Your task to perform on an android device: turn off airplane mode Image 0: 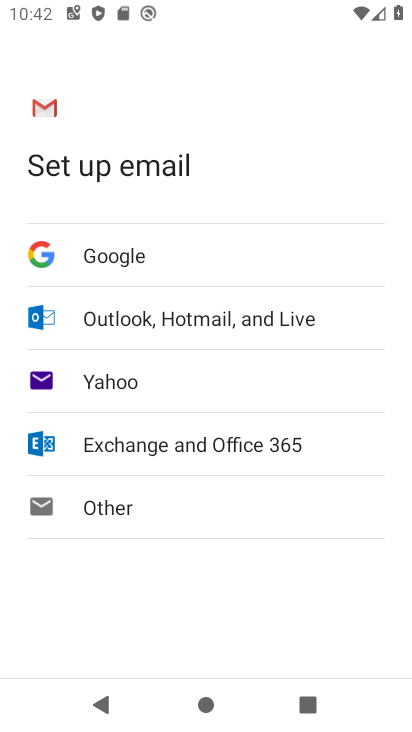
Step 0: press home button
Your task to perform on an android device: turn off airplane mode Image 1: 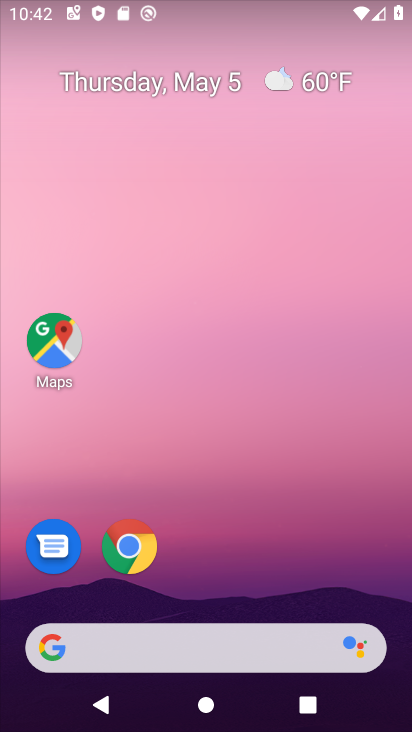
Step 1: drag from (246, 586) to (261, 184)
Your task to perform on an android device: turn off airplane mode Image 2: 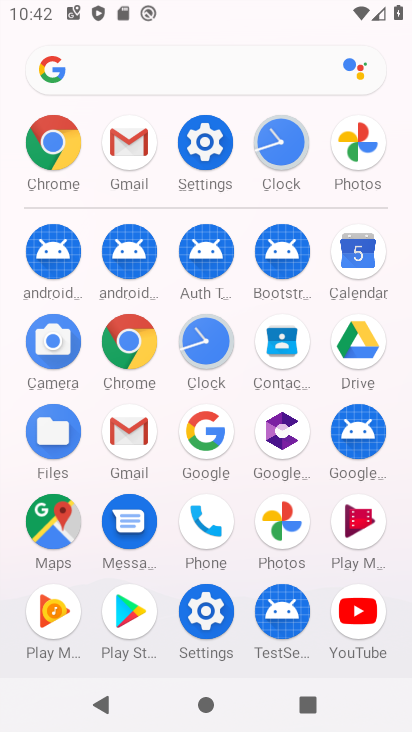
Step 2: click (207, 157)
Your task to perform on an android device: turn off airplane mode Image 3: 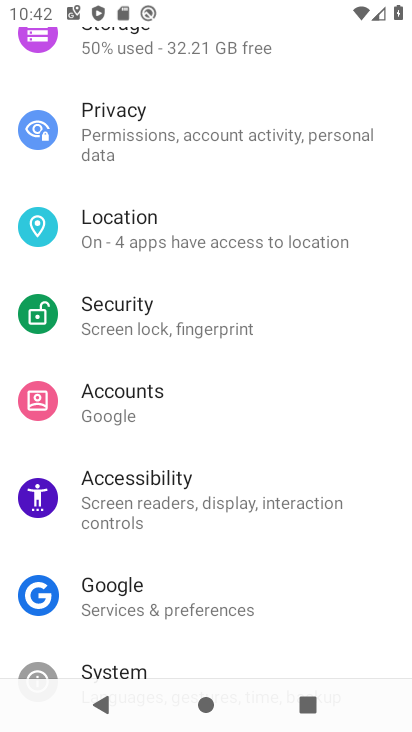
Step 3: drag from (207, 249) to (254, 353)
Your task to perform on an android device: turn off airplane mode Image 4: 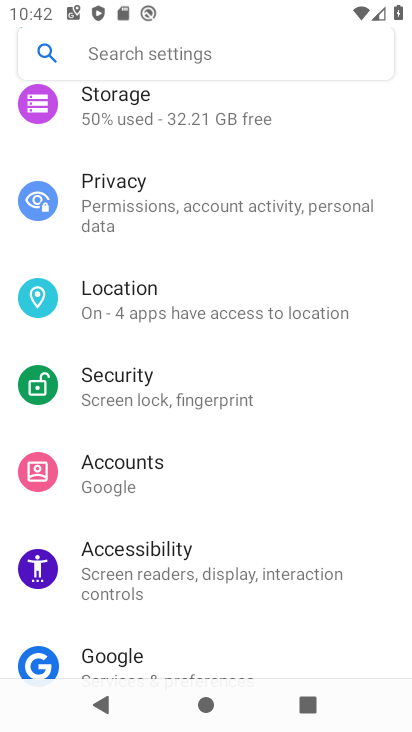
Step 4: drag from (211, 489) to (182, 335)
Your task to perform on an android device: turn off airplane mode Image 5: 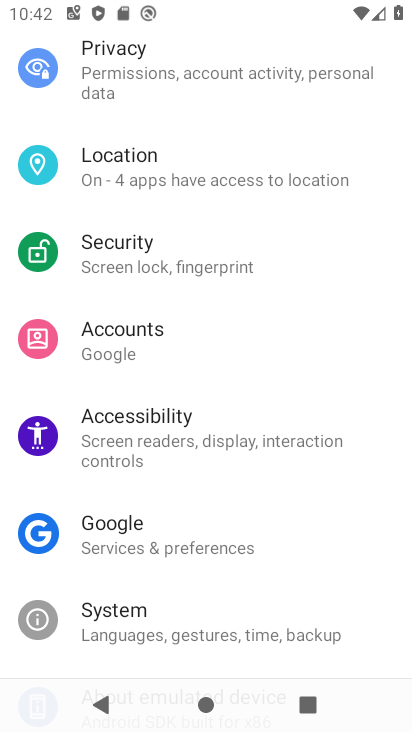
Step 5: drag from (178, 137) to (303, 613)
Your task to perform on an android device: turn off airplane mode Image 6: 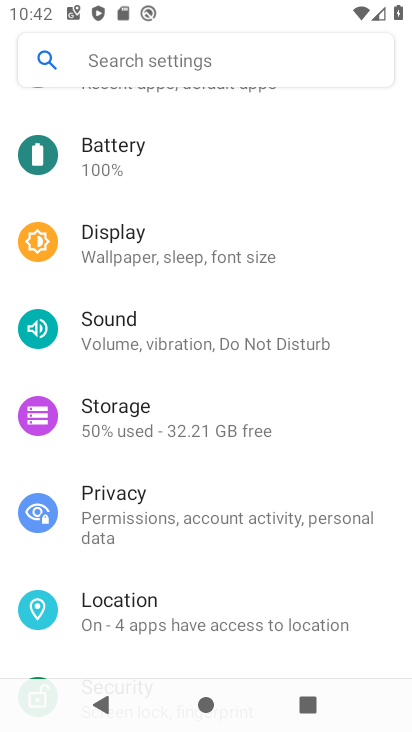
Step 6: drag from (232, 257) to (250, 310)
Your task to perform on an android device: turn off airplane mode Image 7: 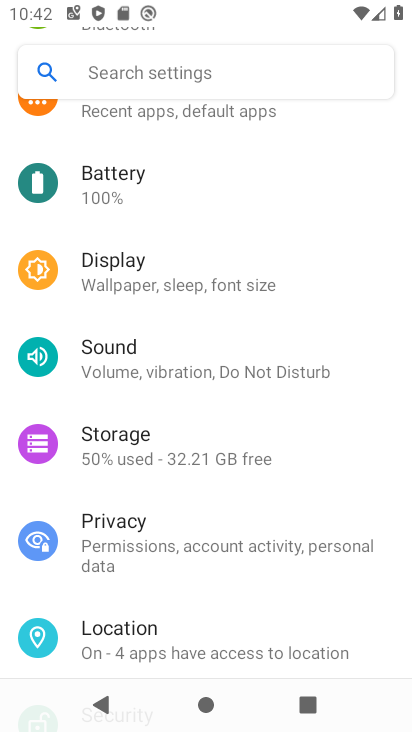
Step 7: drag from (231, 212) to (270, 307)
Your task to perform on an android device: turn off airplane mode Image 8: 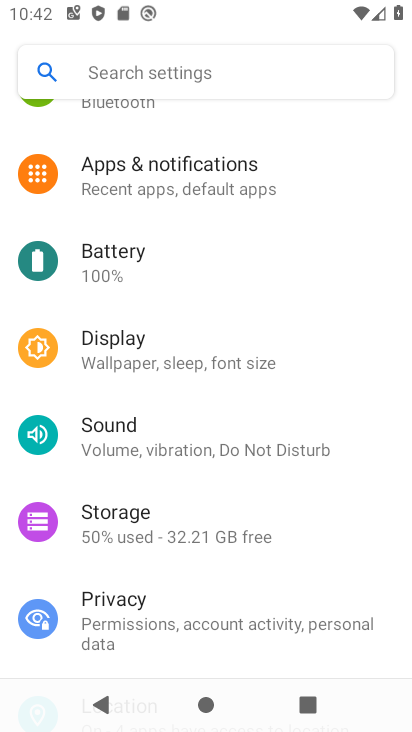
Step 8: drag from (234, 212) to (281, 370)
Your task to perform on an android device: turn off airplane mode Image 9: 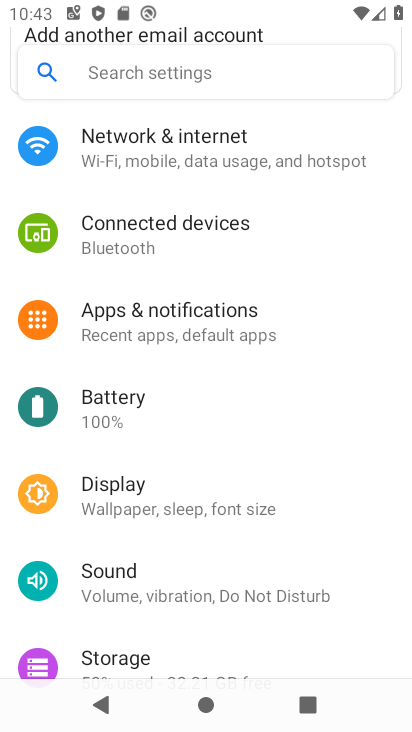
Step 9: drag from (240, 219) to (275, 349)
Your task to perform on an android device: turn off airplane mode Image 10: 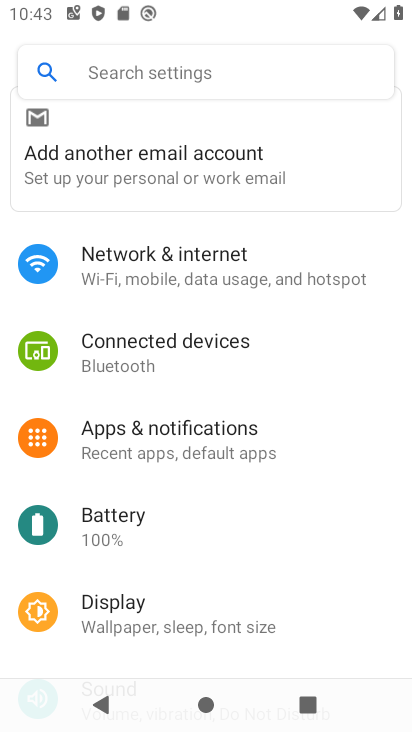
Step 10: click (217, 279)
Your task to perform on an android device: turn off airplane mode Image 11: 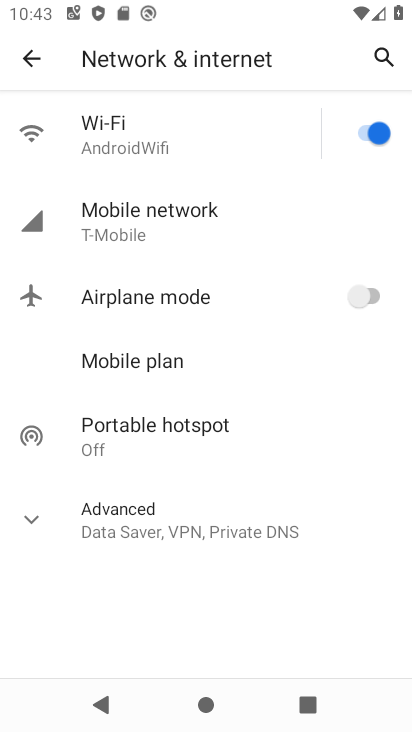
Step 11: task complete